Your task to perform on an android device: What's the weather going to be this weekend? Image 0: 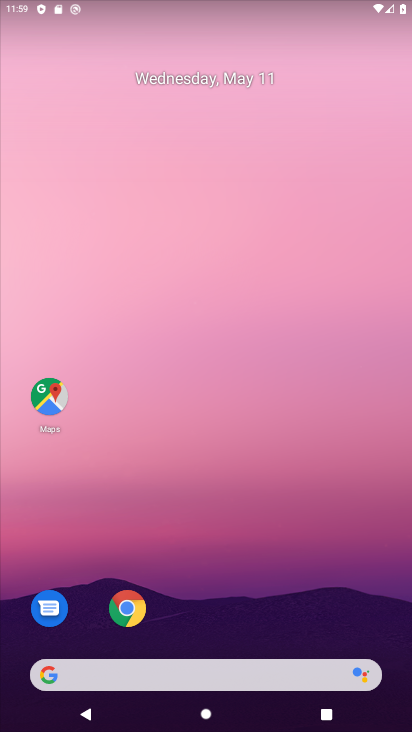
Step 0: click (107, 677)
Your task to perform on an android device: What's the weather going to be this weekend? Image 1: 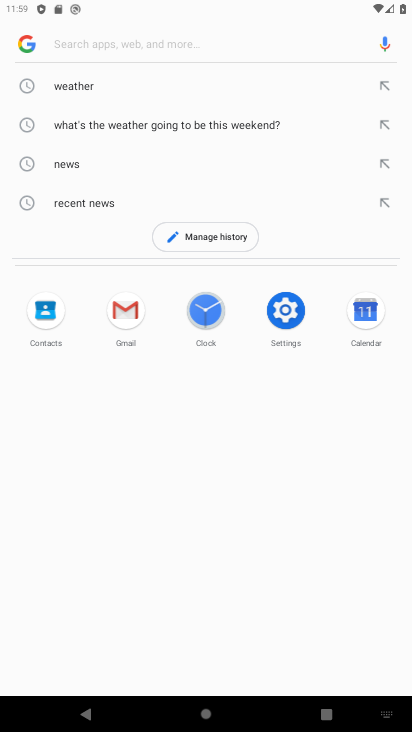
Step 1: click (72, 93)
Your task to perform on an android device: What's the weather going to be this weekend? Image 2: 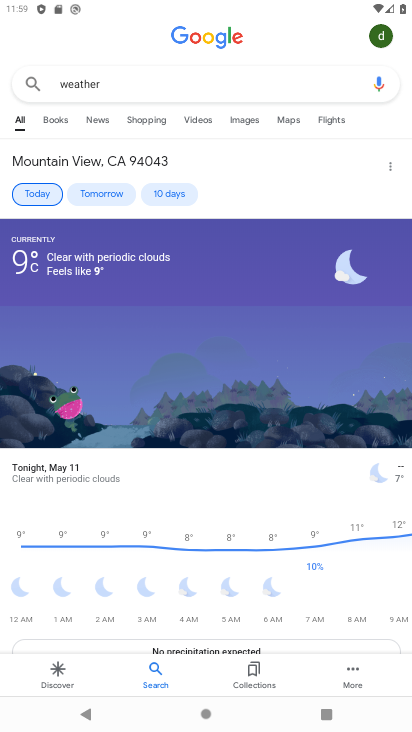
Step 2: click (180, 192)
Your task to perform on an android device: What's the weather going to be this weekend? Image 3: 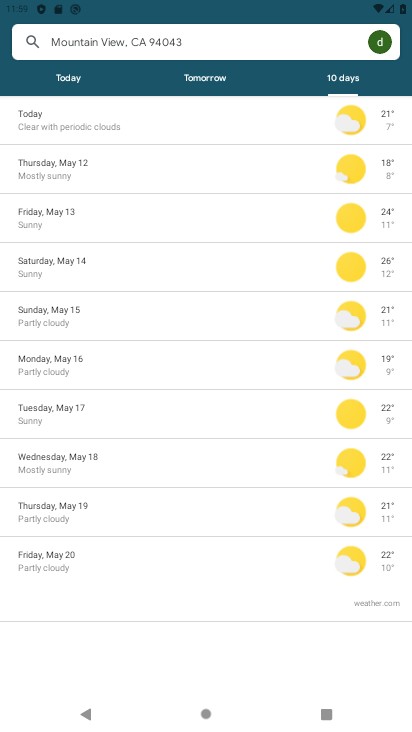
Step 3: task complete